Your task to perform on an android device: change alarm snooze length Image 0: 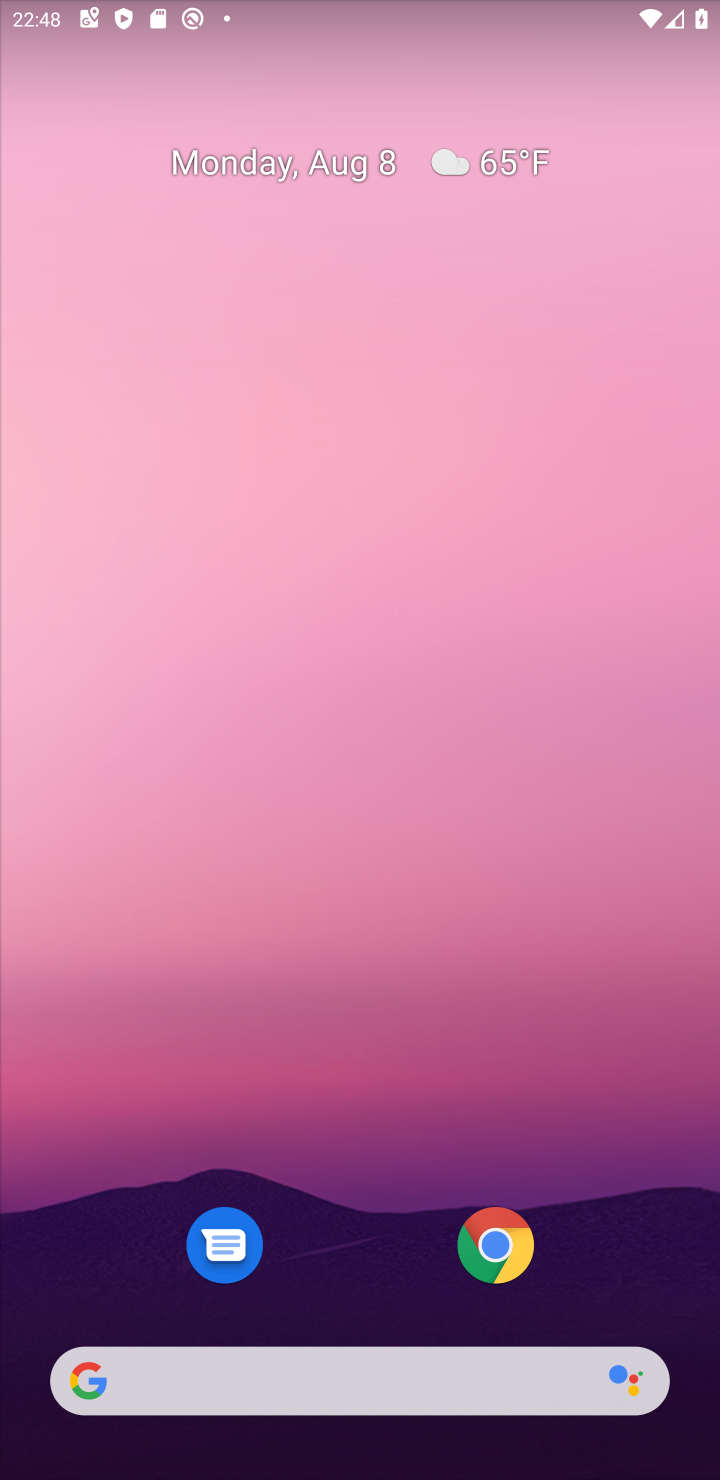
Step 0: press home button
Your task to perform on an android device: change alarm snooze length Image 1: 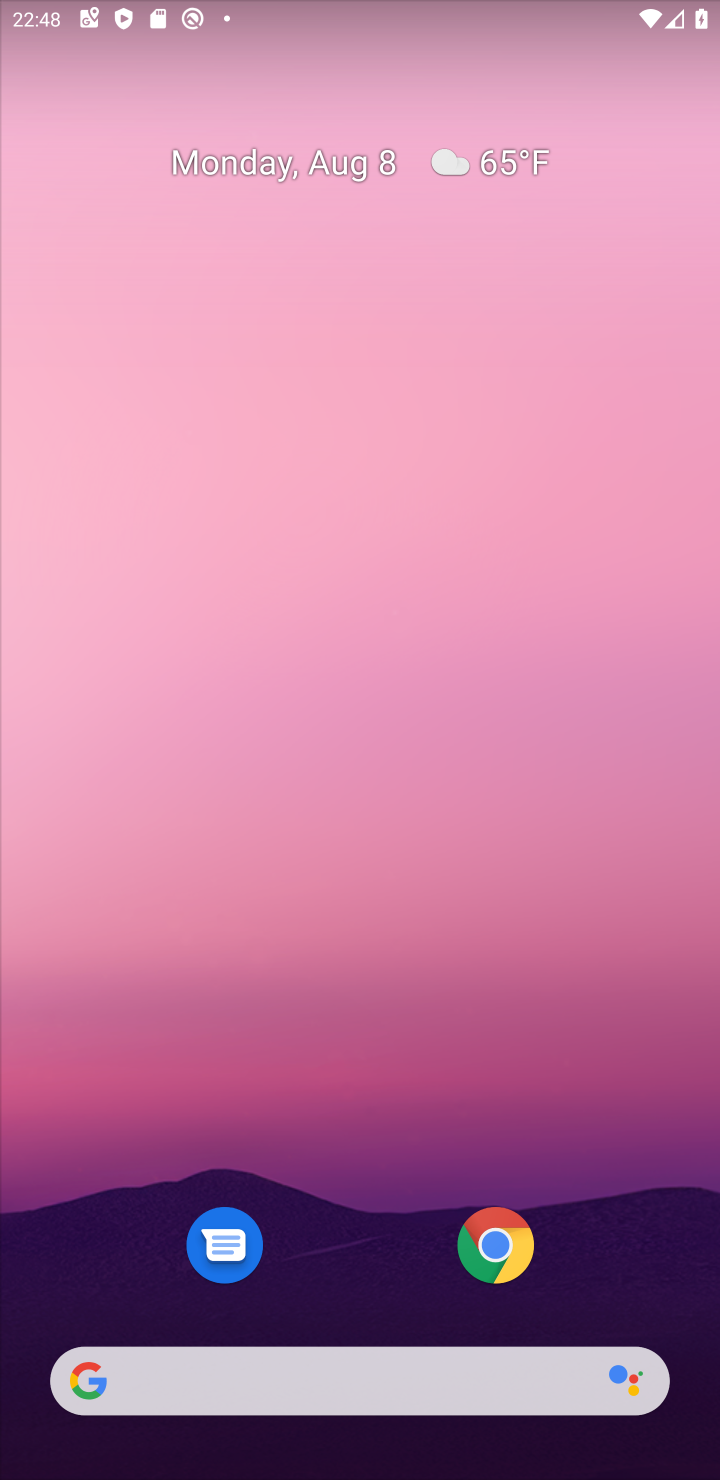
Step 1: drag from (308, 784) to (271, 126)
Your task to perform on an android device: change alarm snooze length Image 2: 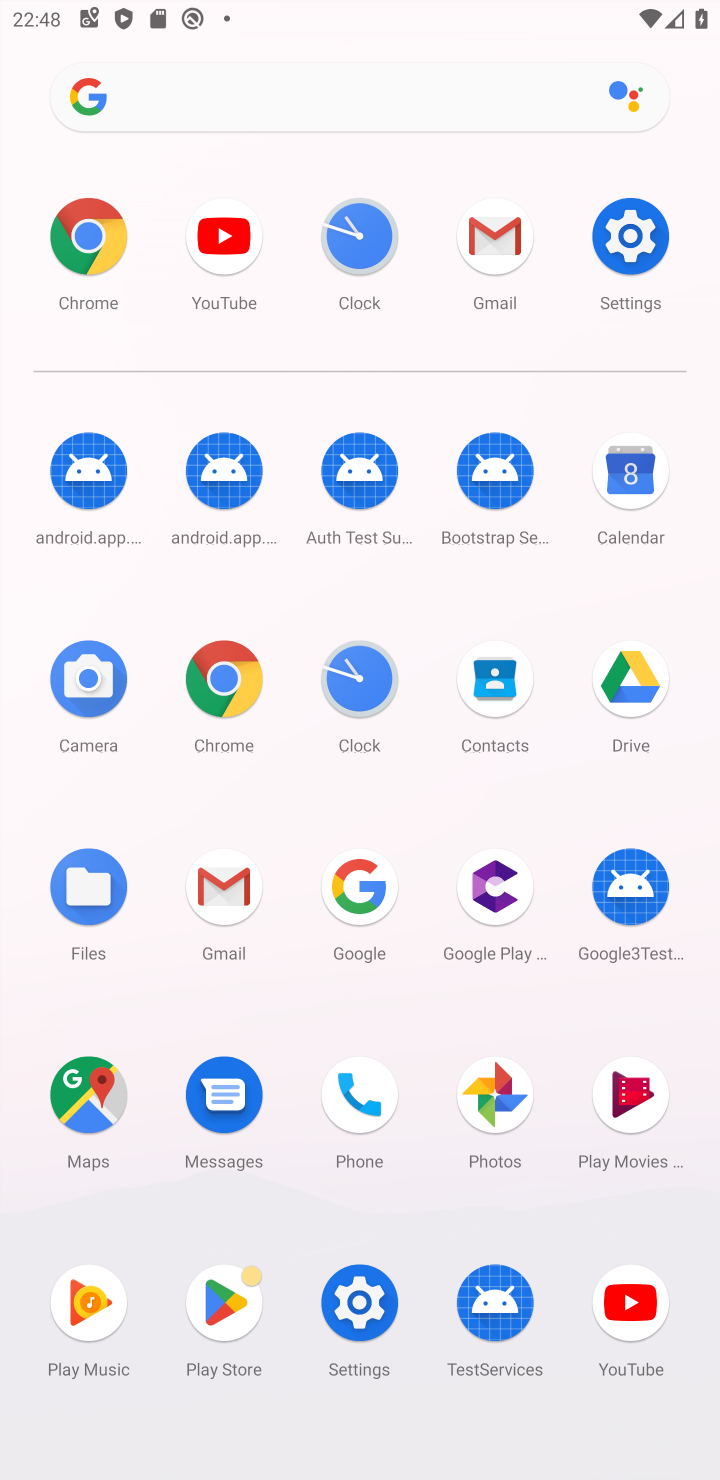
Step 2: click (351, 244)
Your task to perform on an android device: change alarm snooze length Image 3: 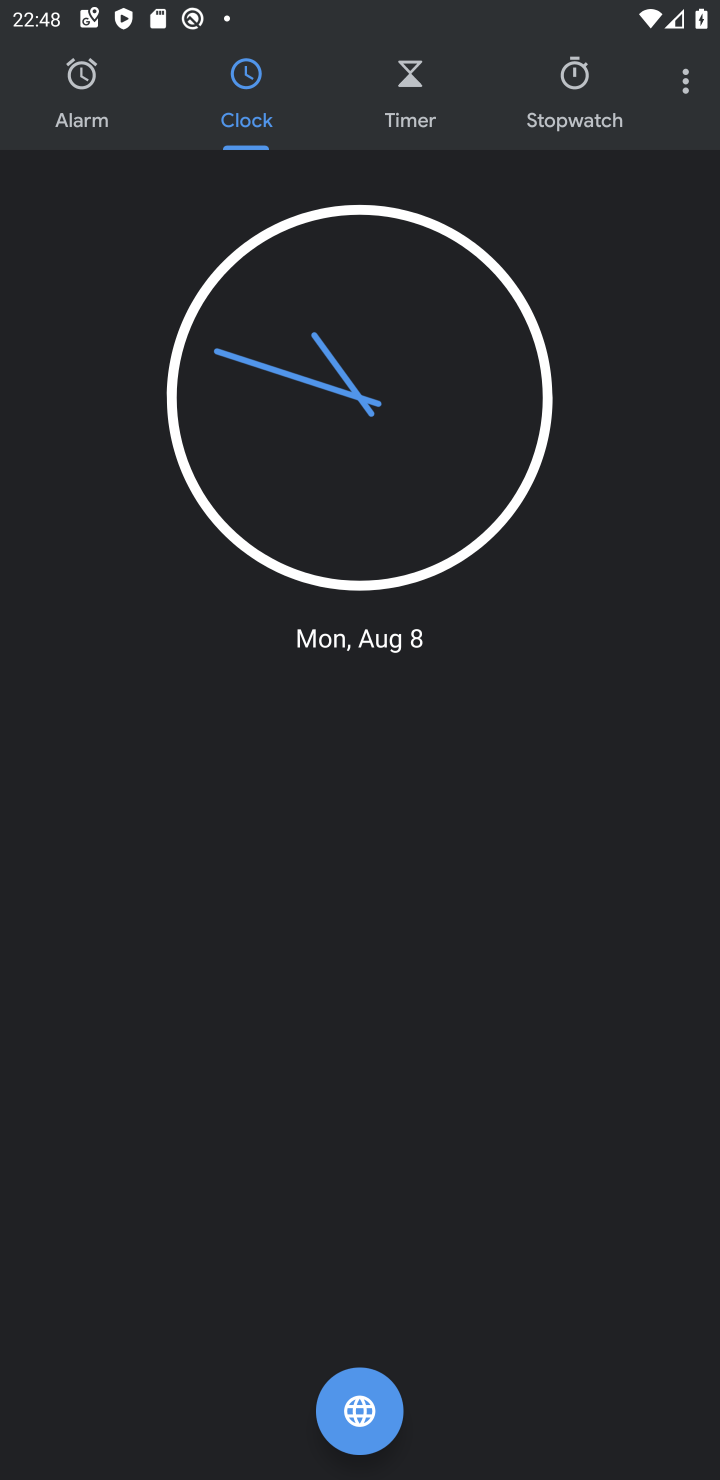
Step 3: click (694, 79)
Your task to perform on an android device: change alarm snooze length Image 4: 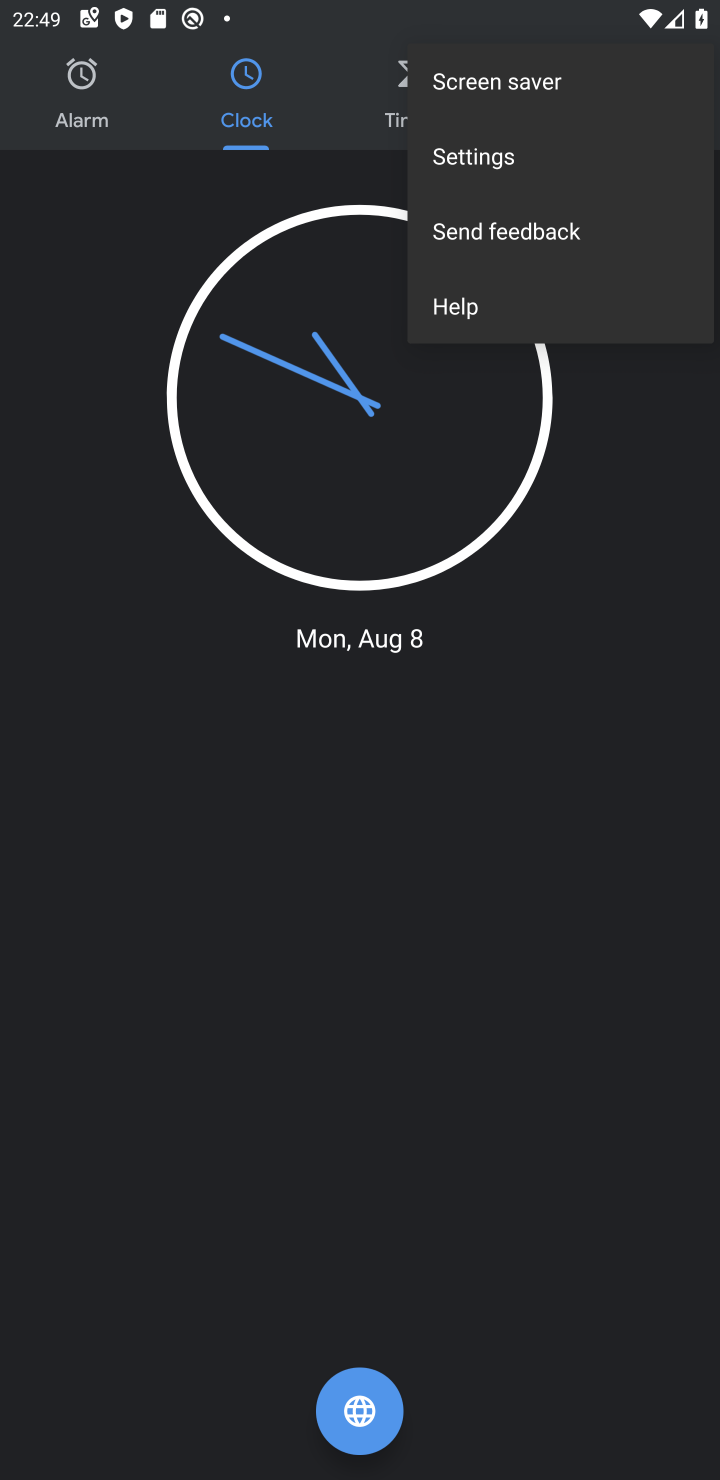
Step 4: click (493, 158)
Your task to perform on an android device: change alarm snooze length Image 5: 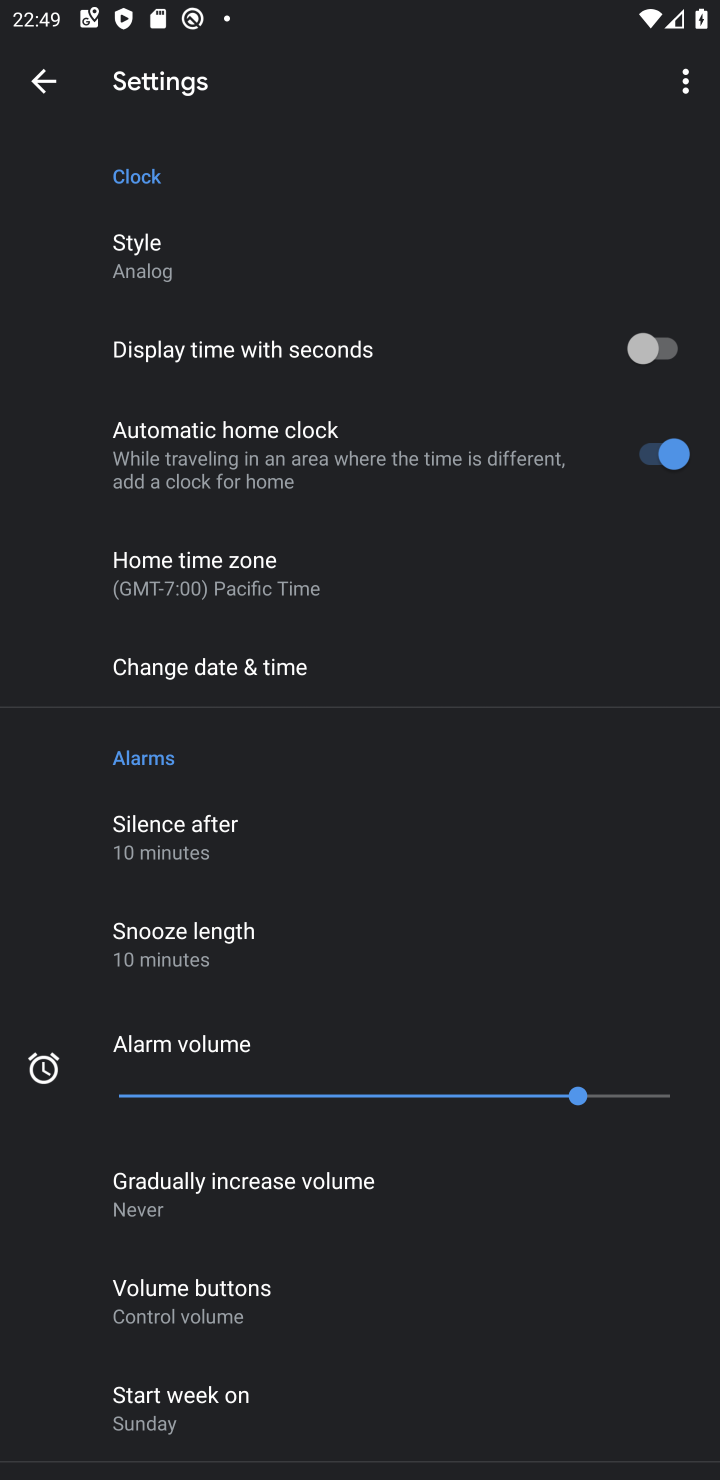
Step 5: click (230, 940)
Your task to perform on an android device: change alarm snooze length Image 6: 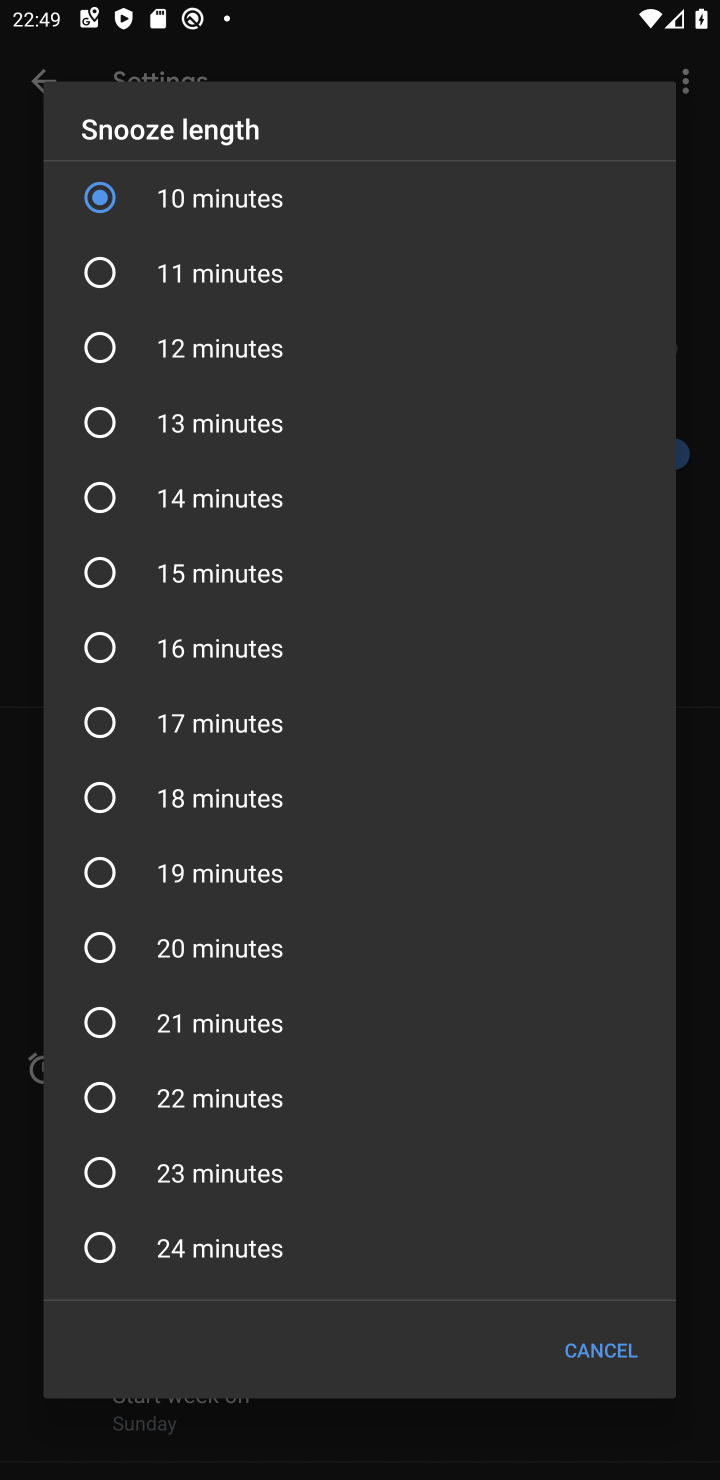
Step 6: click (97, 568)
Your task to perform on an android device: change alarm snooze length Image 7: 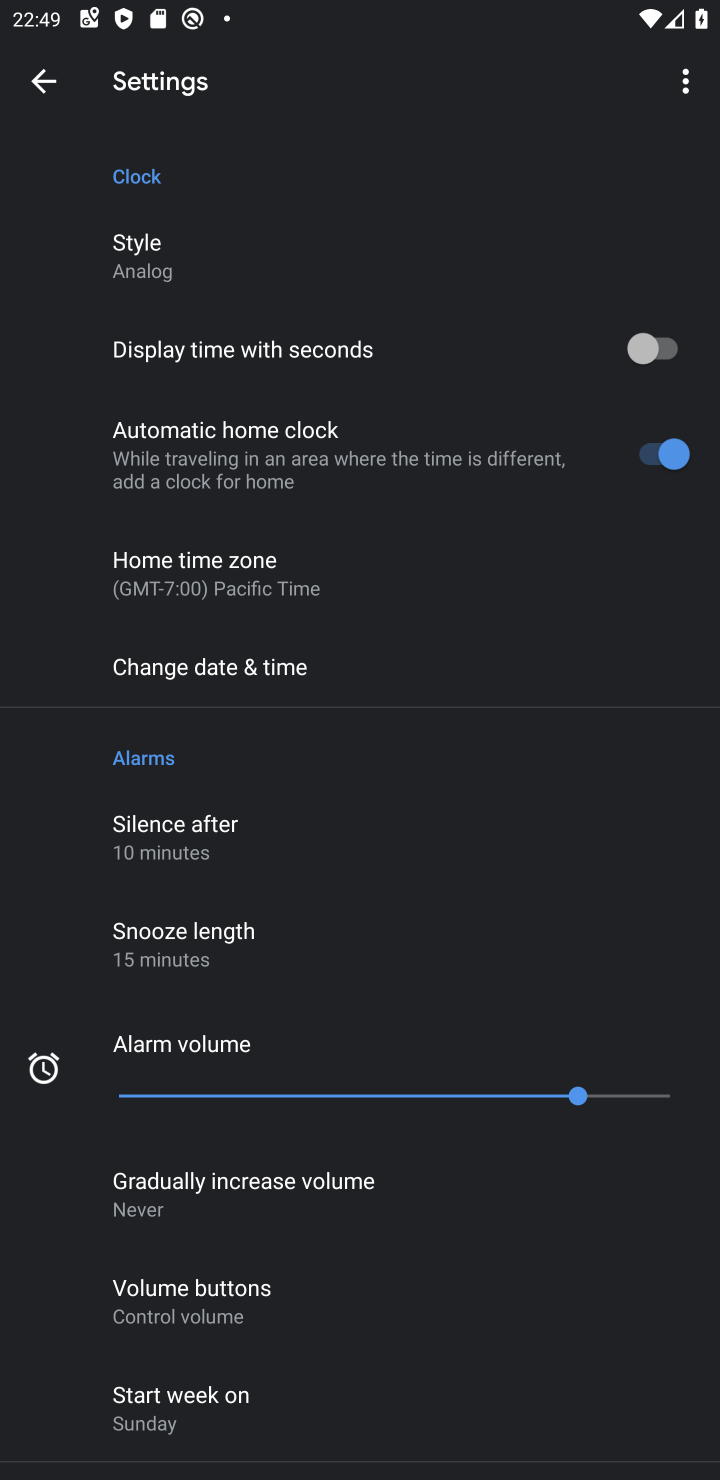
Step 7: task complete